Your task to perform on an android device: Go to sound settings Image 0: 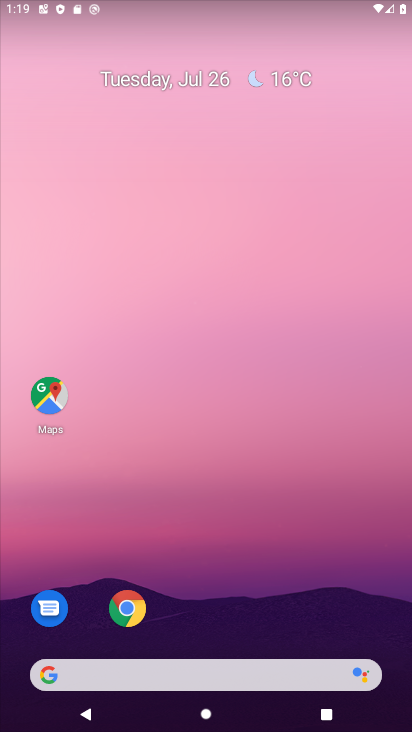
Step 0: drag from (320, 632) to (165, 1)
Your task to perform on an android device: Go to sound settings Image 1: 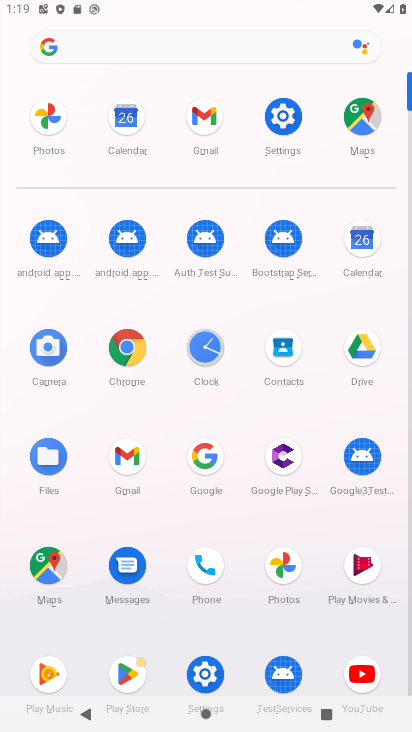
Step 1: click (284, 118)
Your task to perform on an android device: Go to sound settings Image 2: 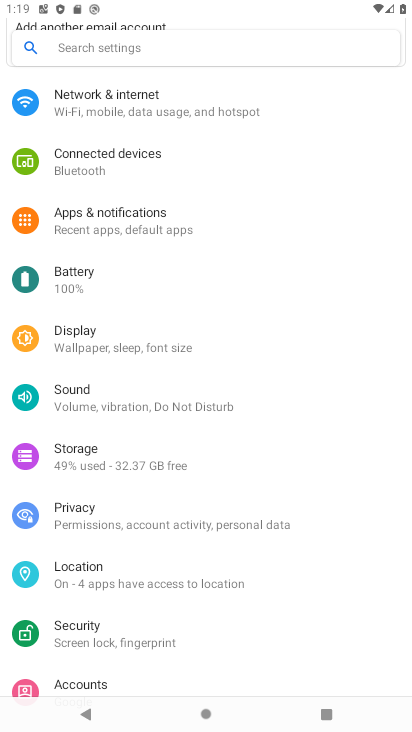
Step 2: click (151, 388)
Your task to perform on an android device: Go to sound settings Image 3: 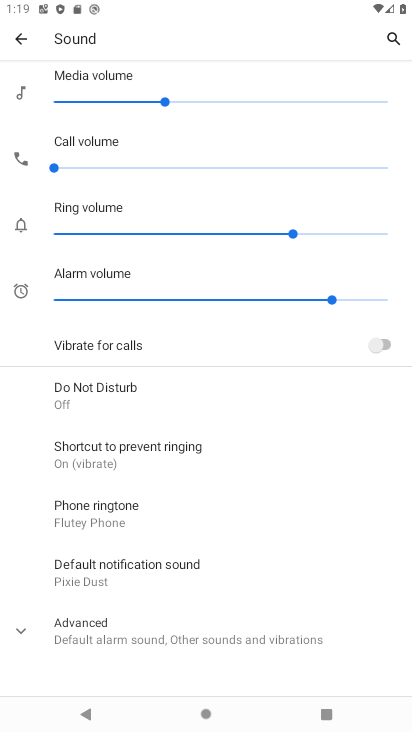
Step 3: task complete